Your task to perform on an android device: Check the weather Image 0: 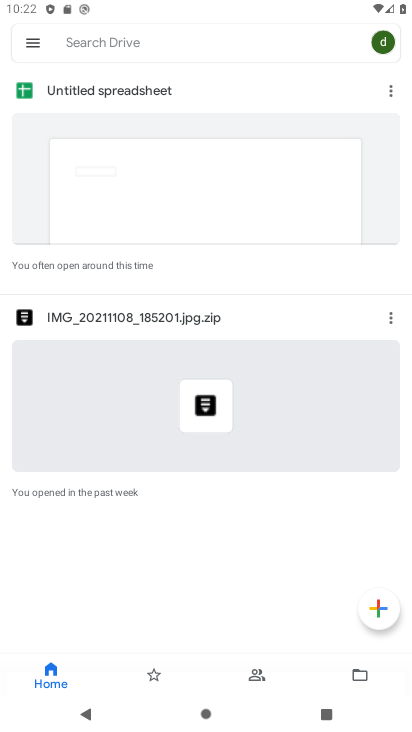
Step 0: press home button
Your task to perform on an android device: Check the weather Image 1: 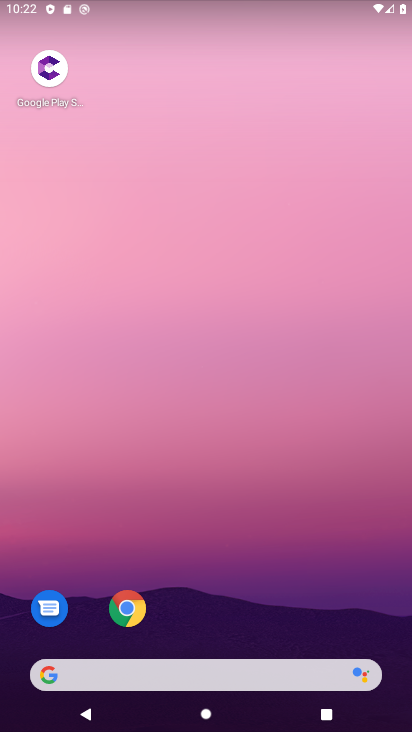
Step 1: drag from (249, 567) to (193, 87)
Your task to perform on an android device: Check the weather Image 2: 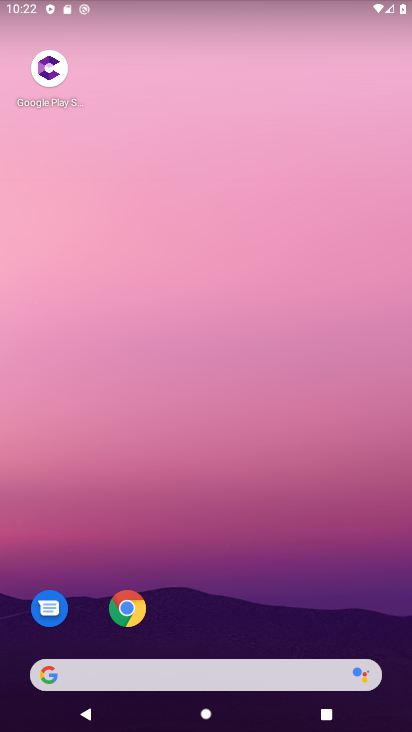
Step 2: drag from (217, 561) to (185, 28)
Your task to perform on an android device: Check the weather Image 3: 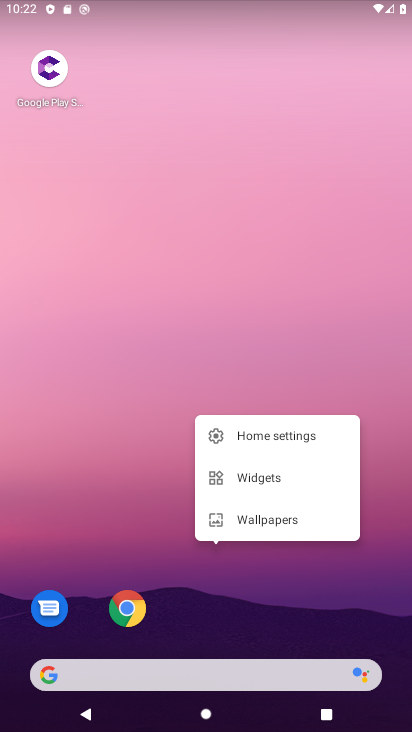
Step 3: click (211, 574)
Your task to perform on an android device: Check the weather Image 4: 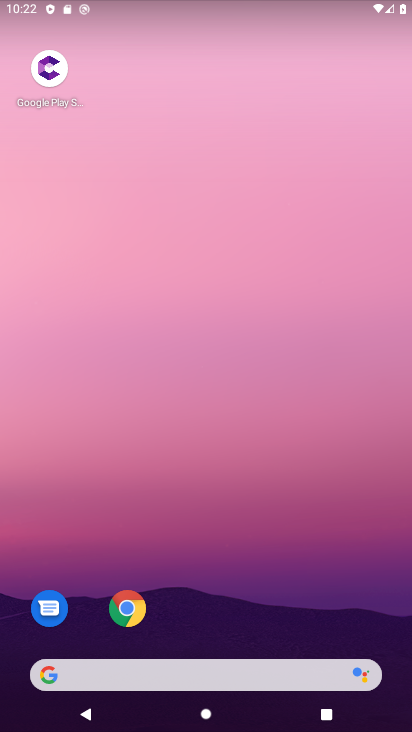
Step 4: drag from (211, 574) to (154, 43)
Your task to perform on an android device: Check the weather Image 5: 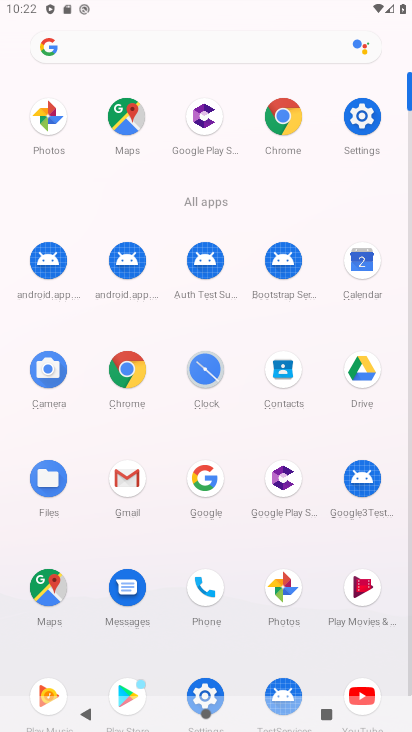
Step 5: click (204, 476)
Your task to perform on an android device: Check the weather Image 6: 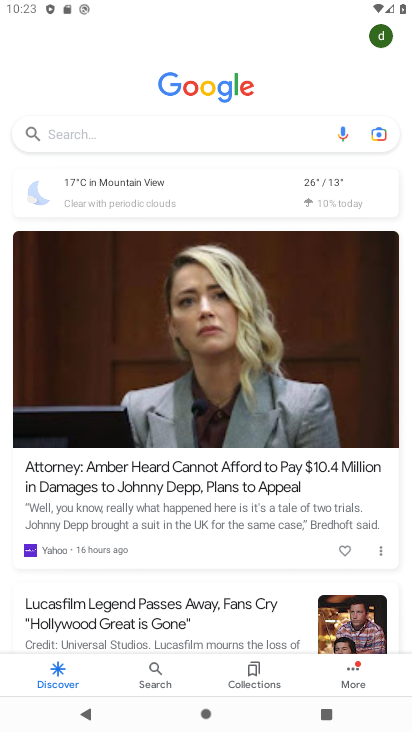
Step 6: click (319, 182)
Your task to perform on an android device: Check the weather Image 7: 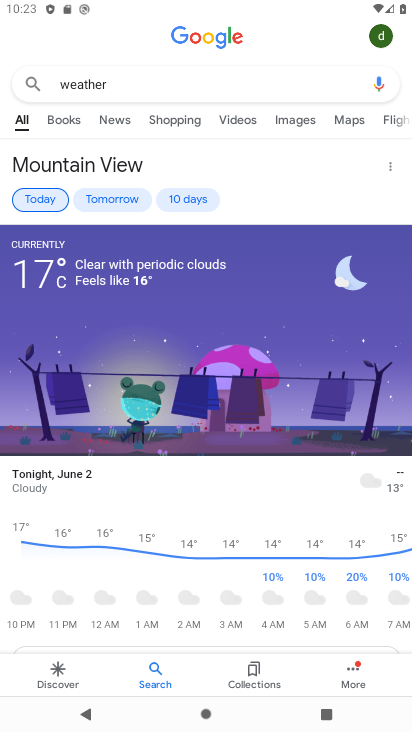
Step 7: task complete